Your task to perform on an android device: Go to accessibility settings Image 0: 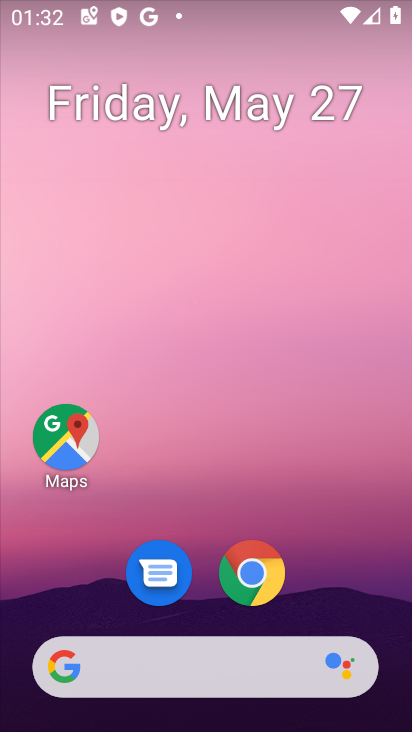
Step 0: drag from (163, 614) to (111, 26)
Your task to perform on an android device: Go to accessibility settings Image 1: 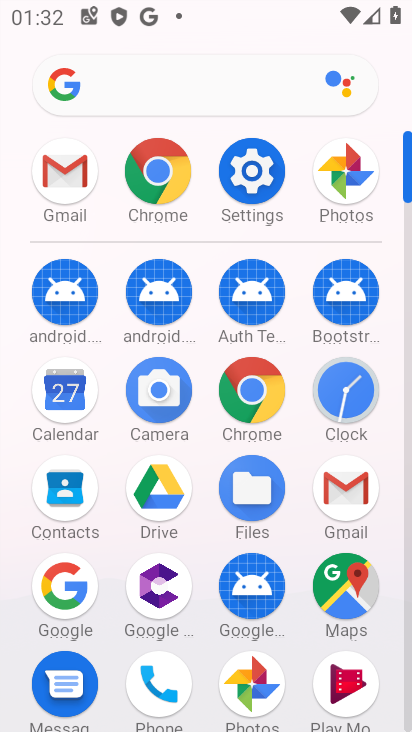
Step 1: click (253, 160)
Your task to perform on an android device: Go to accessibility settings Image 2: 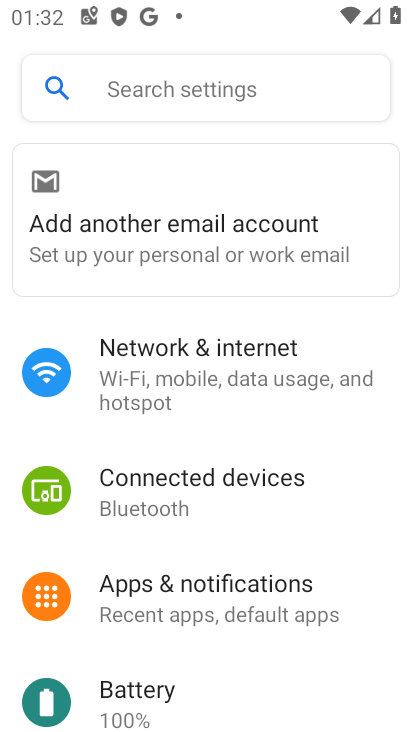
Step 2: drag from (274, 527) to (278, 161)
Your task to perform on an android device: Go to accessibility settings Image 3: 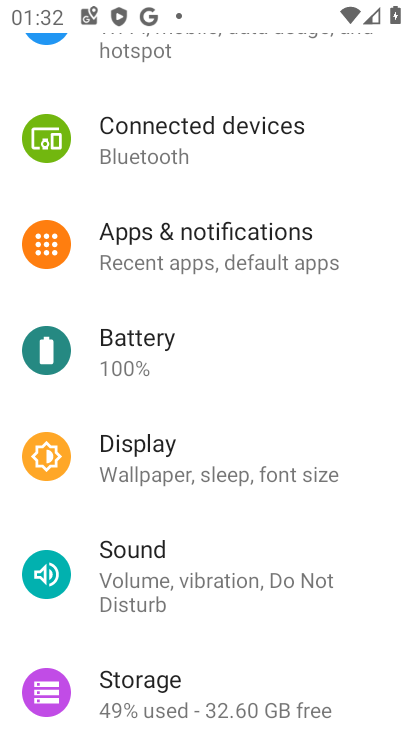
Step 3: drag from (274, 560) to (227, 92)
Your task to perform on an android device: Go to accessibility settings Image 4: 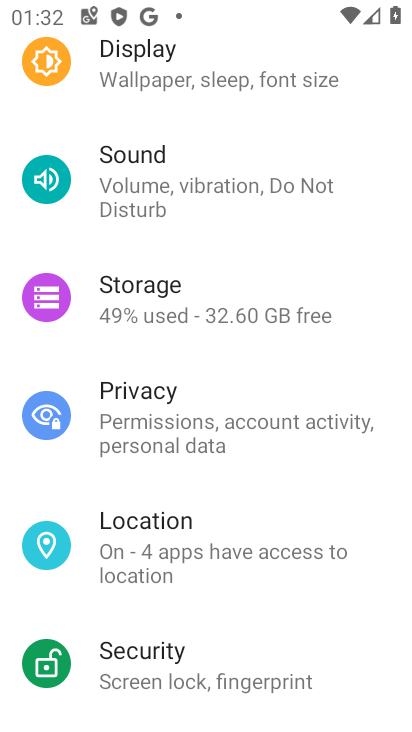
Step 4: drag from (135, 595) to (111, 146)
Your task to perform on an android device: Go to accessibility settings Image 5: 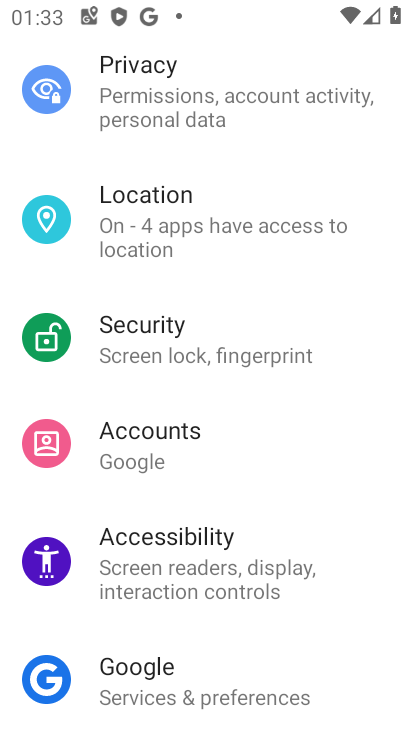
Step 5: click (246, 578)
Your task to perform on an android device: Go to accessibility settings Image 6: 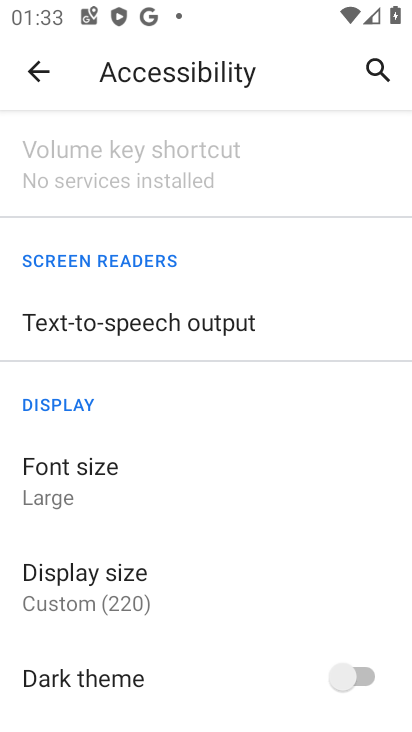
Step 6: task complete